Your task to perform on an android device: open a bookmark in the chrome app Image 0: 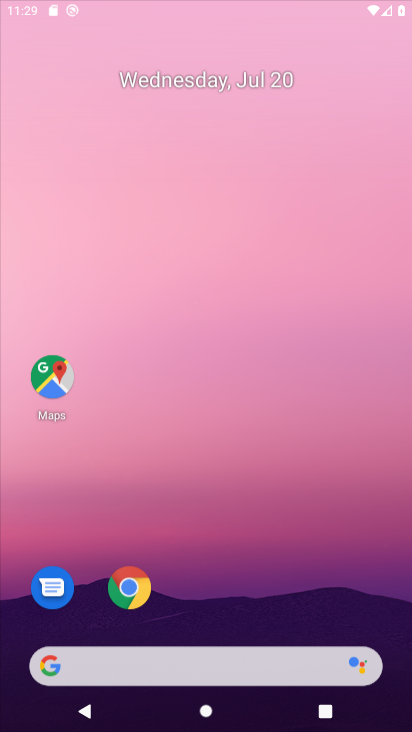
Step 0: press home button
Your task to perform on an android device: open a bookmark in the chrome app Image 1: 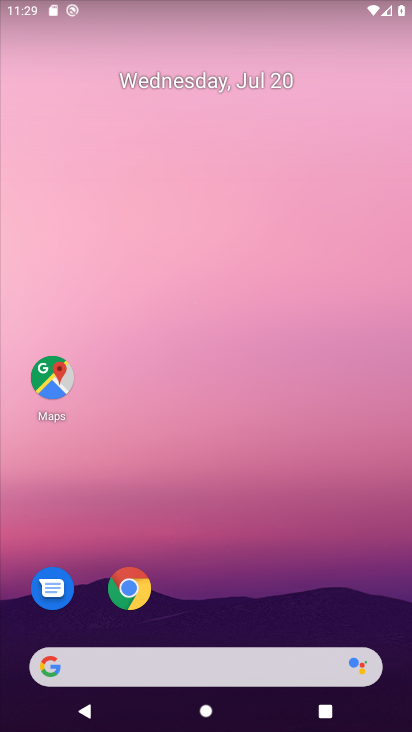
Step 1: click (125, 585)
Your task to perform on an android device: open a bookmark in the chrome app Image 2: 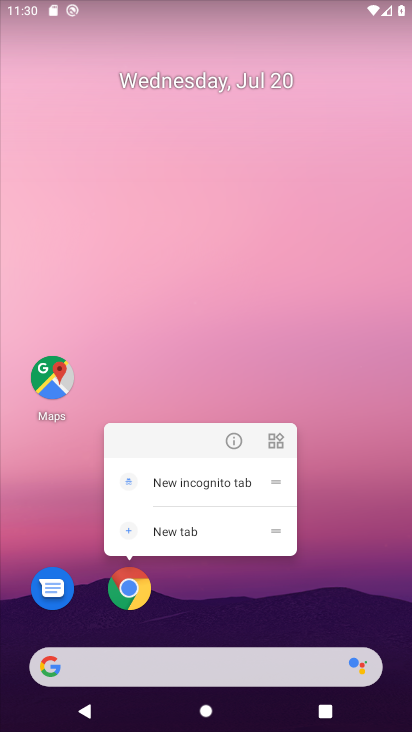
Step 2: click (125, 586)
Your task to perform on an android device: open a bookmark in the chrome app Image 3: 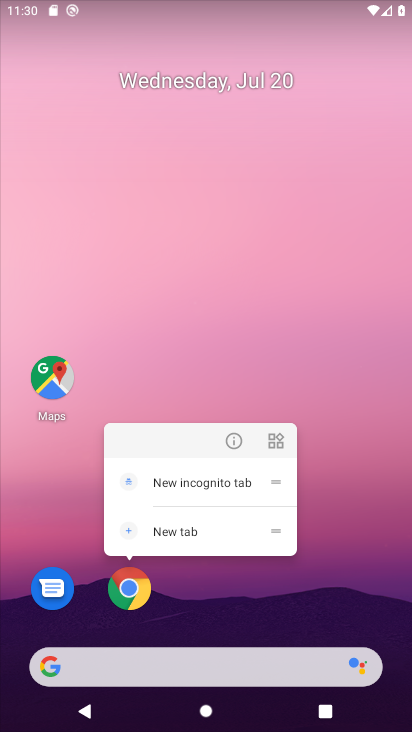
Step 3: click (126, 586)
Your task to perform on an android device: open a bookmark in the chrome app Image 4: 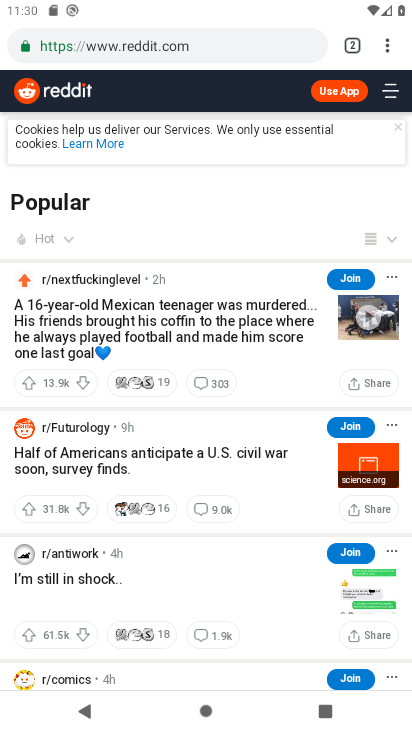
Step 4: click (385, 44)
Your task to perform on an android device: open a bookmark in the chrome app Image 5: 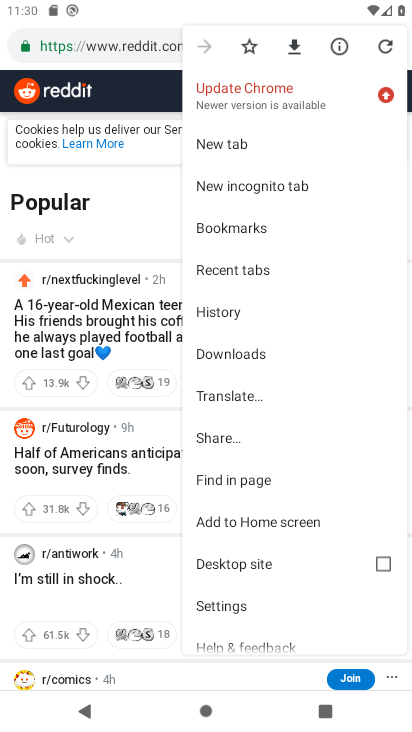
Step 5: click (275, 226)
Your task to perform on an android device: open a bookmark in the chrome app Image 6: 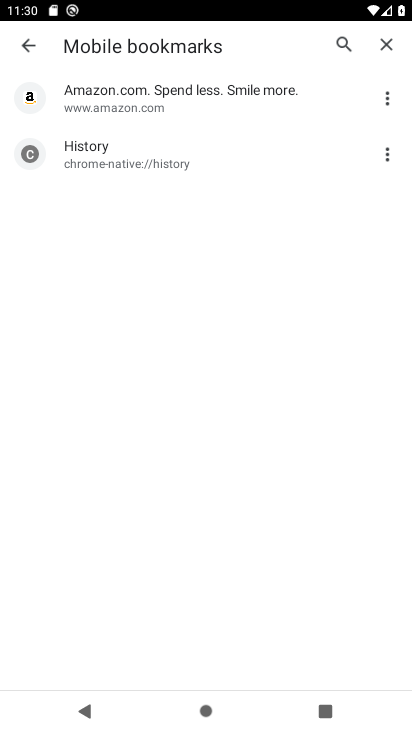
Step 6: task complete